Your task to perform on an android device: Add "logitech g pro" to the cart on newegg, then select checkout. Image 0: 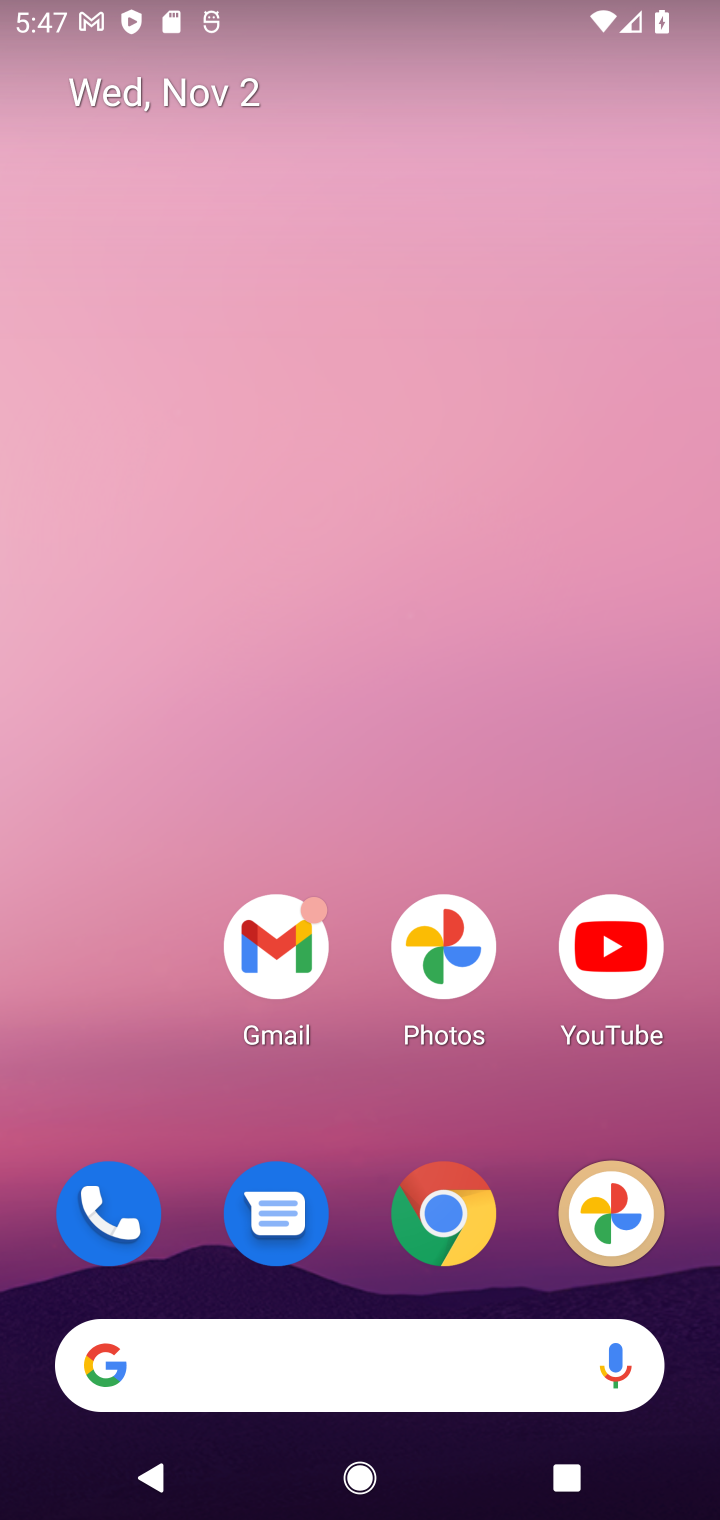
Step 0: click (450, 1209)
Your task to perform on an android device: Add "logitech g pro" to the cart on newegg, then select checkout. Image 1: 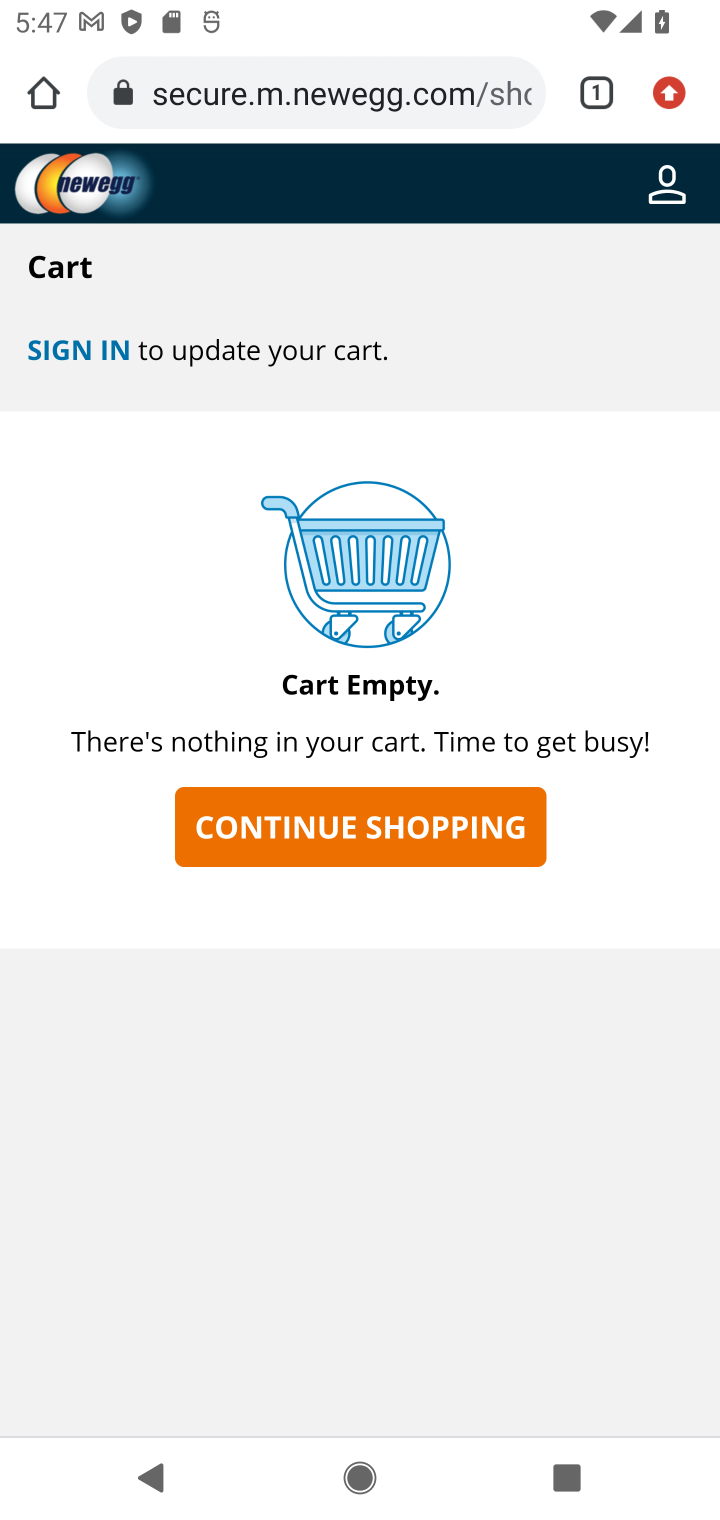
Step 1: click (401, 62)
Your task to perform on an android device: Add "logitech g pro" to the cart on newegg, then select checkout. Image 2: 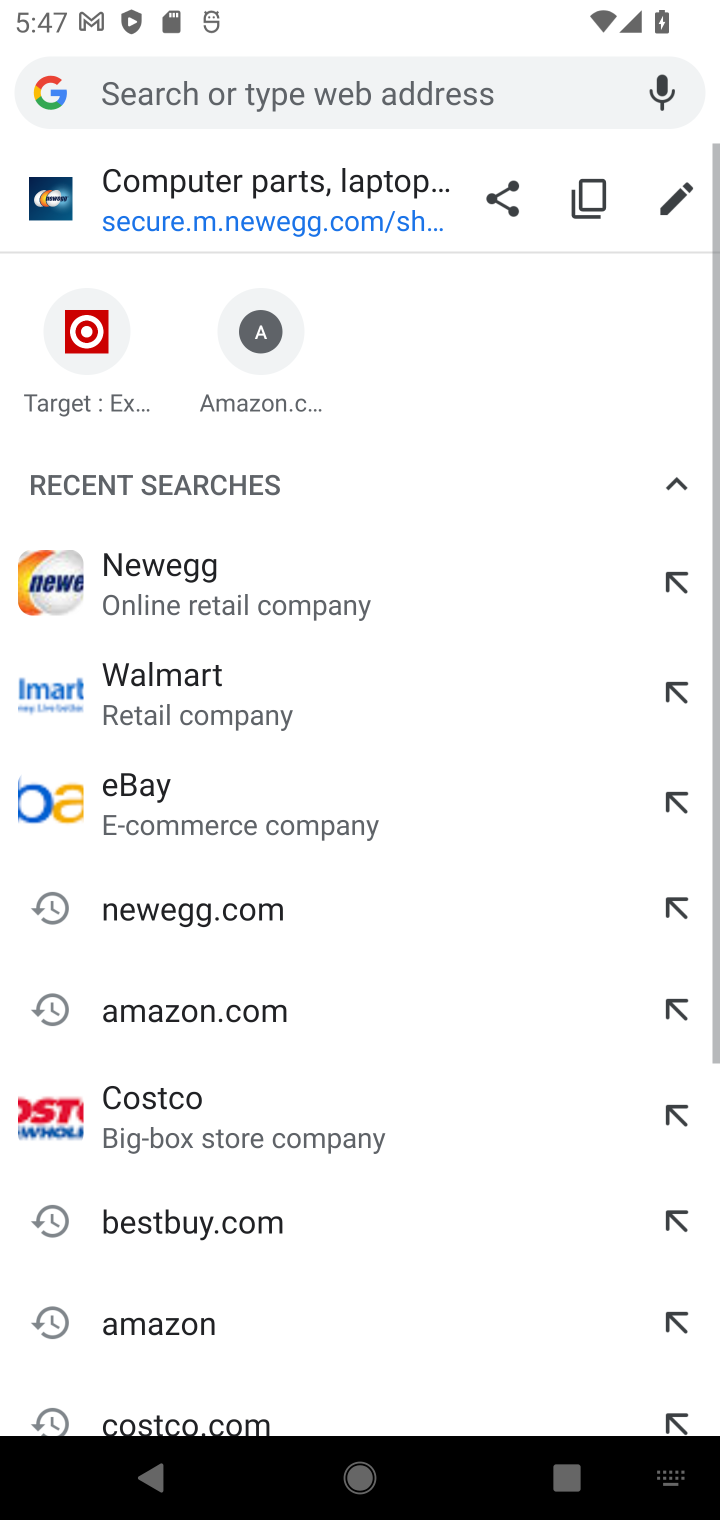
Step 2: click (142, 195)
Your task to perform on an android device: Add "logitech g pro" to the cart on newegg, then select checkout. Image 3: 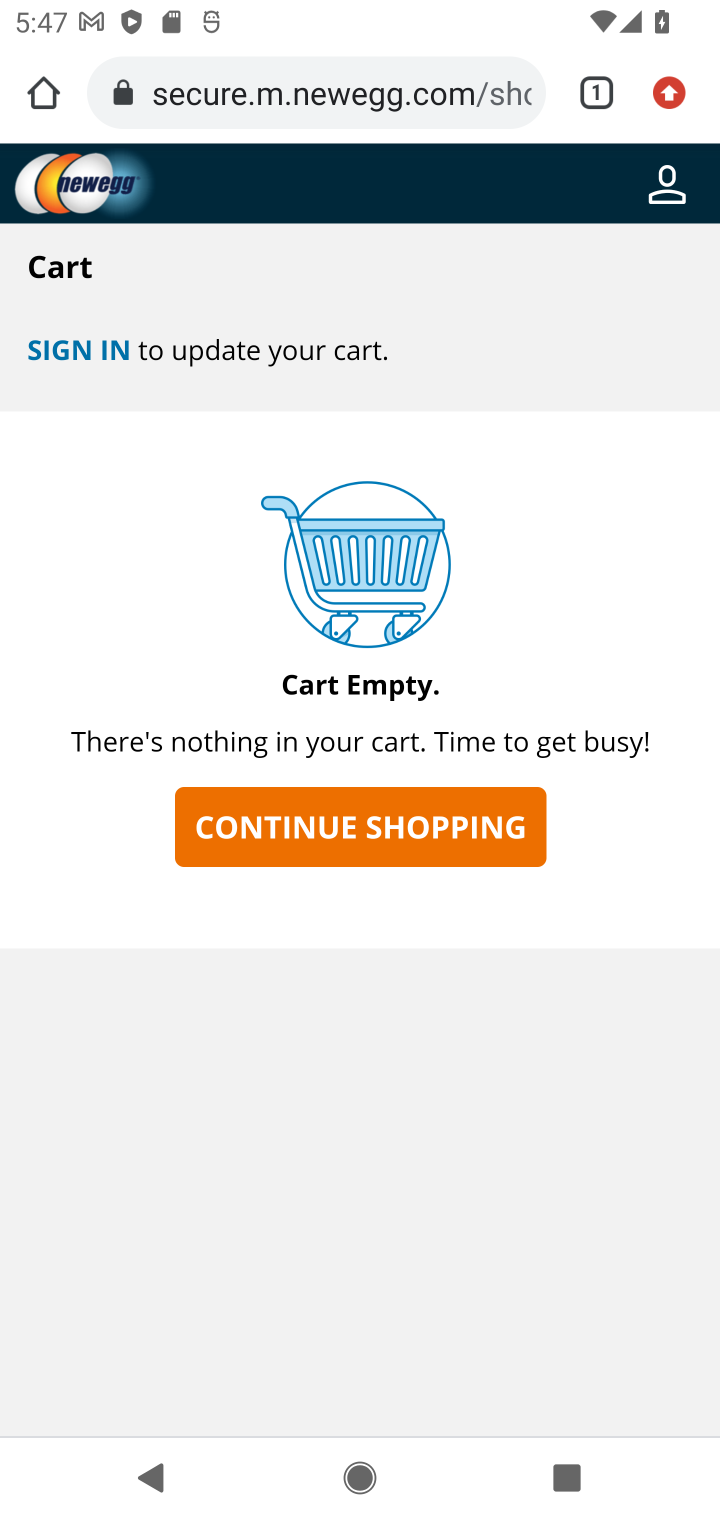
Step 3: drag from (520, 315) to (472, 682)
Your task to perform on an android device: Add "logitech g pro" to the cart on newegg, then select checkout. Image 4: 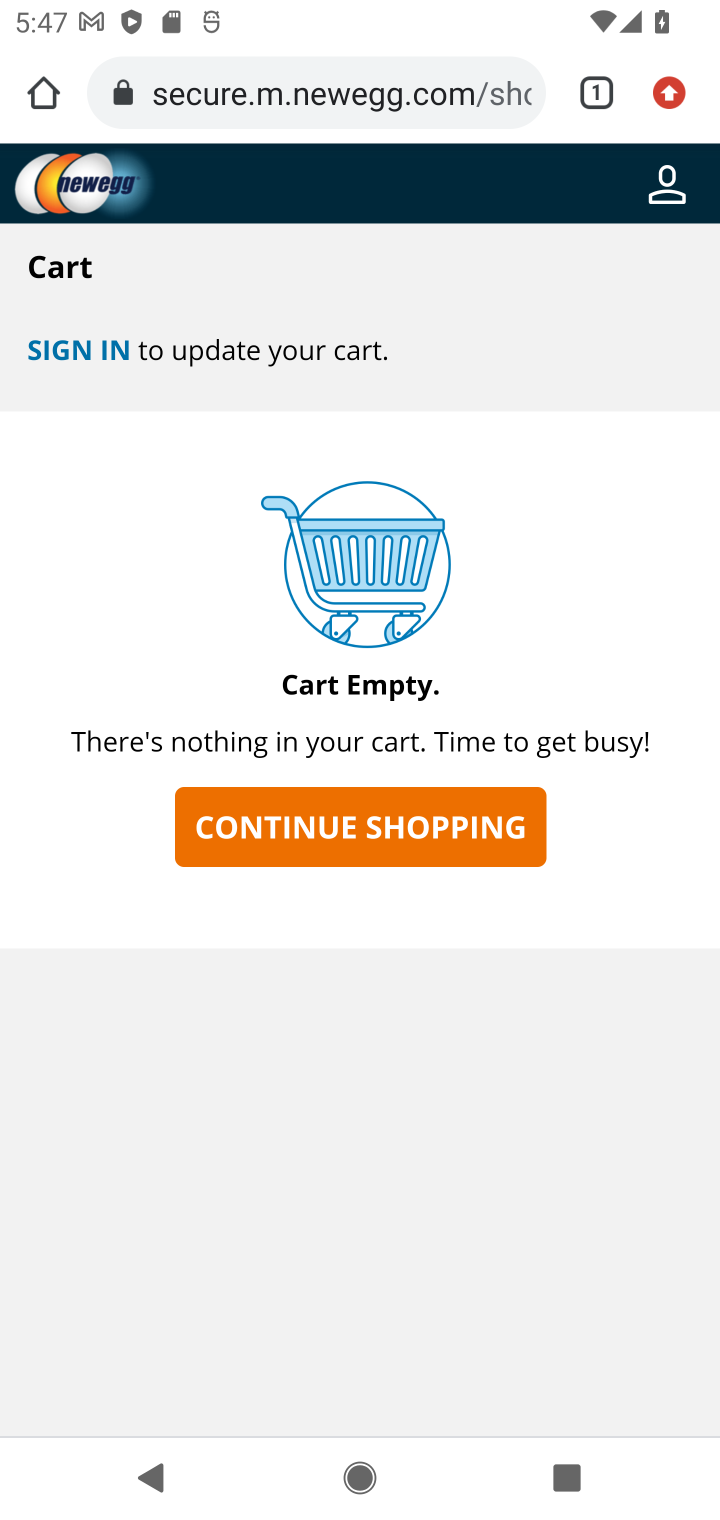
Step 4: click (330, 822)
Your task to perform on an android device: Add "logitech g pro" to the cart on newegg, then select checkout. Image 5: 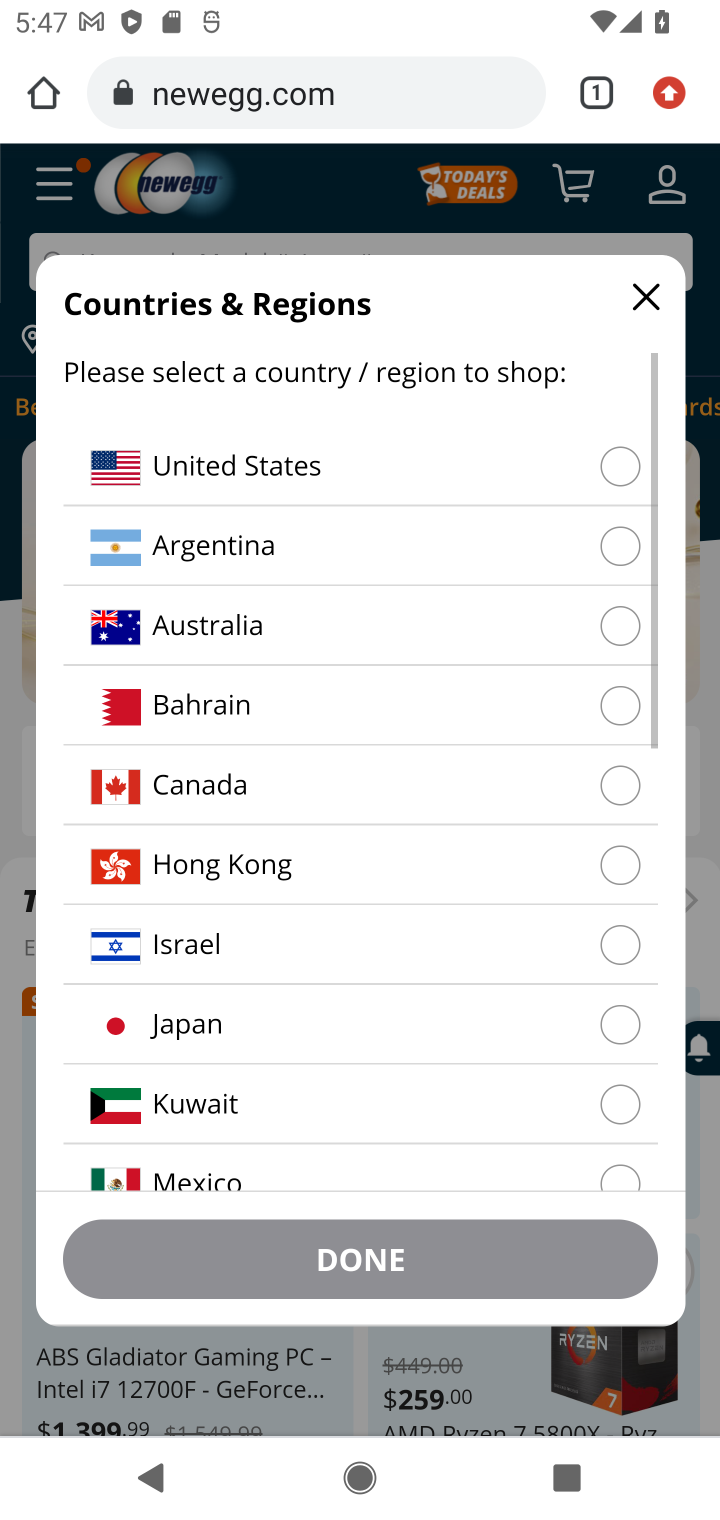
Step 5: click (614, 463)
Your task to perform on an android device: Add "logitech g pro" to the cart on newegg, then select checkout. Image 6: 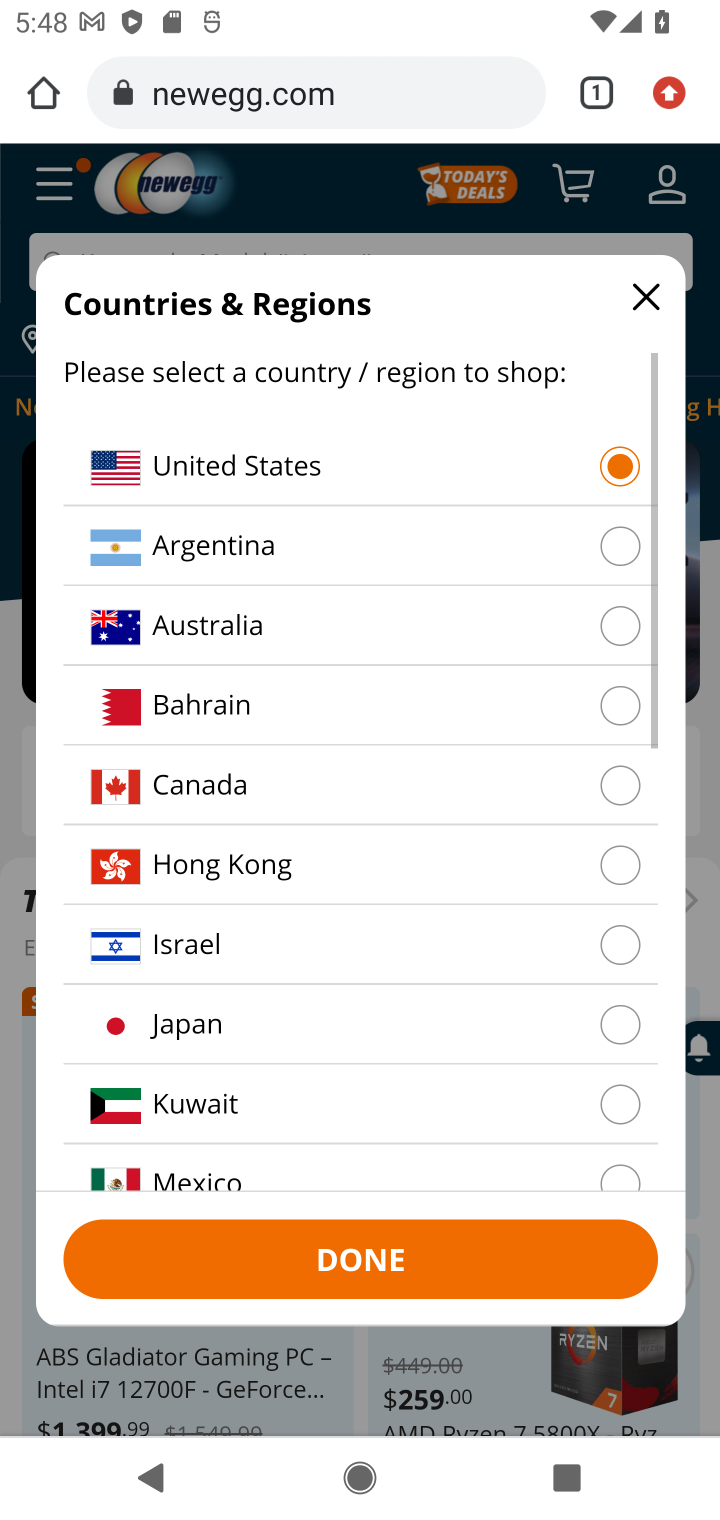
Step 6: click (364, 1256)
Your task to perform on an android device: Add "logitech g pro" to the cart on newegg, then select checkout. Image 7: 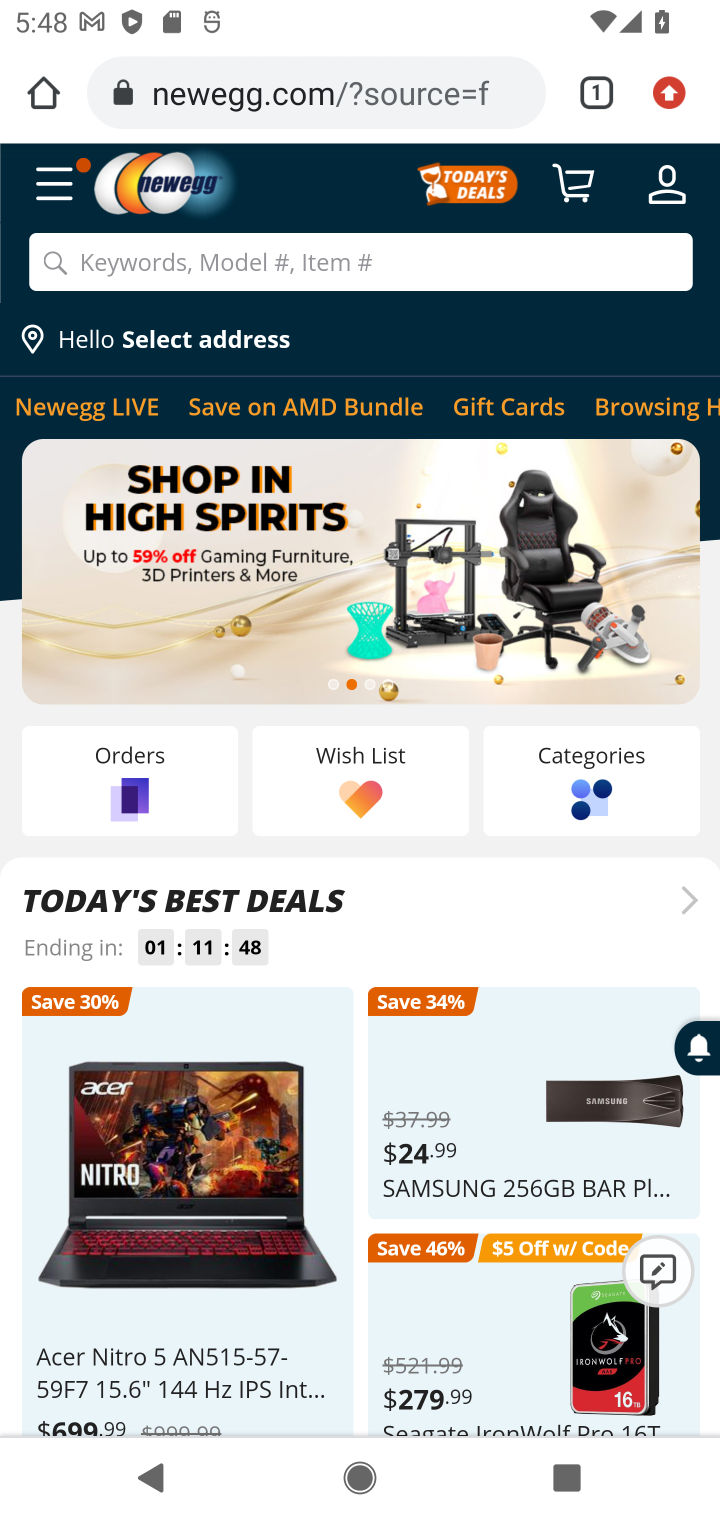
Step 7: click (238, 242)
Your task to perform on an android device: Add "logitech g pro" to the cart on newegg, then select checkout. Image 8: 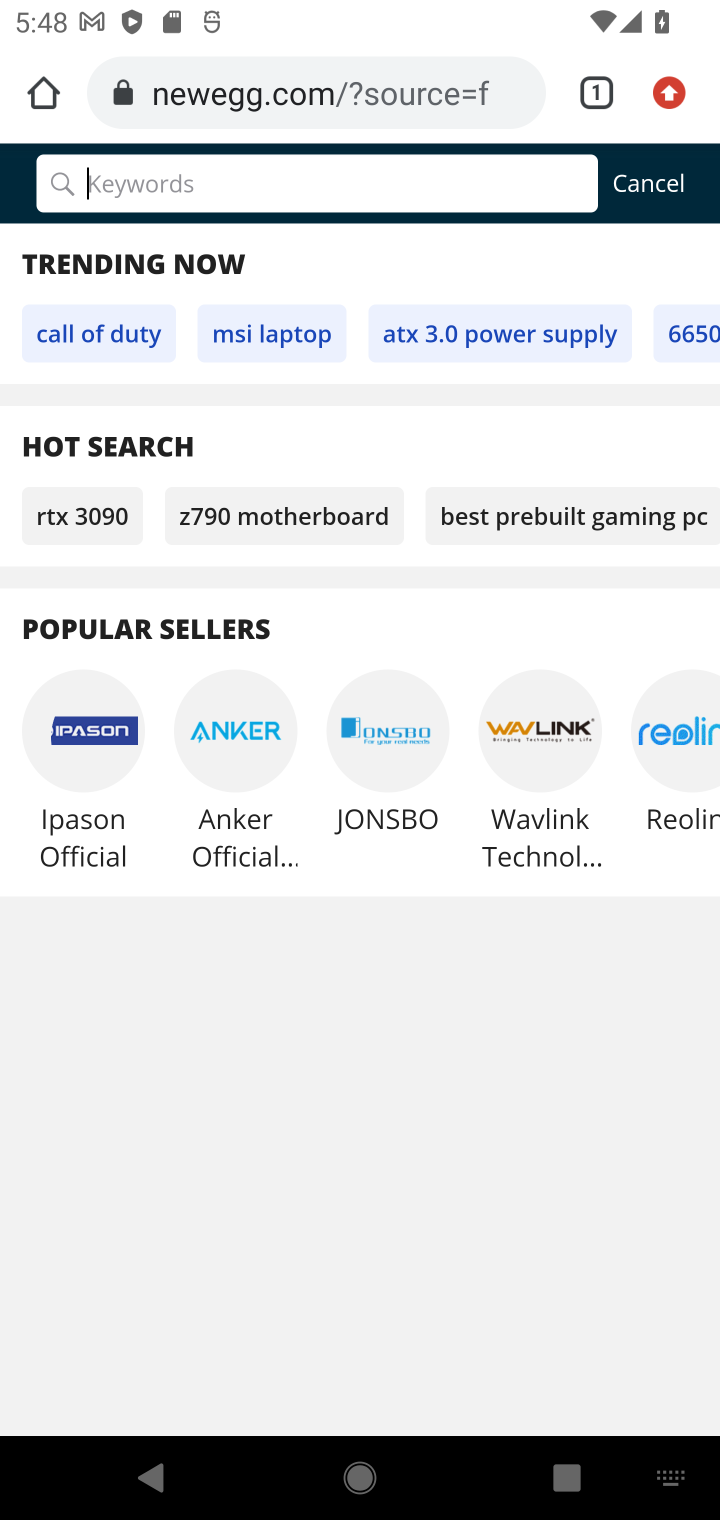
Step 8: type "logitech g pro"
Your task to perform on an android device: Add "logitech g pro" to the cart on newegg, then select checkout. Image 9: 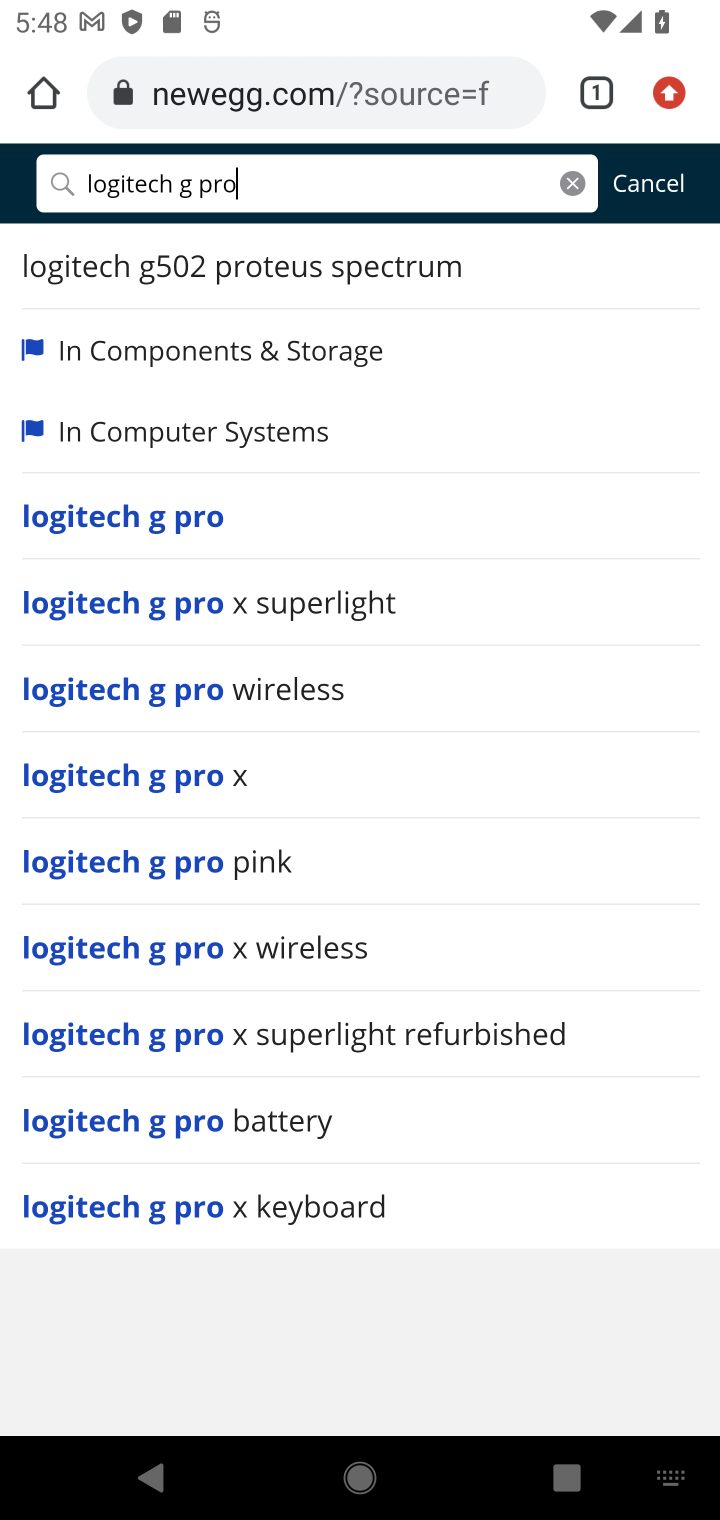
Step 9: click (129, 512)
Your task to perform on an android device: Add "logitech g pro" to the cart on newegg, then select checkout. Image 10: 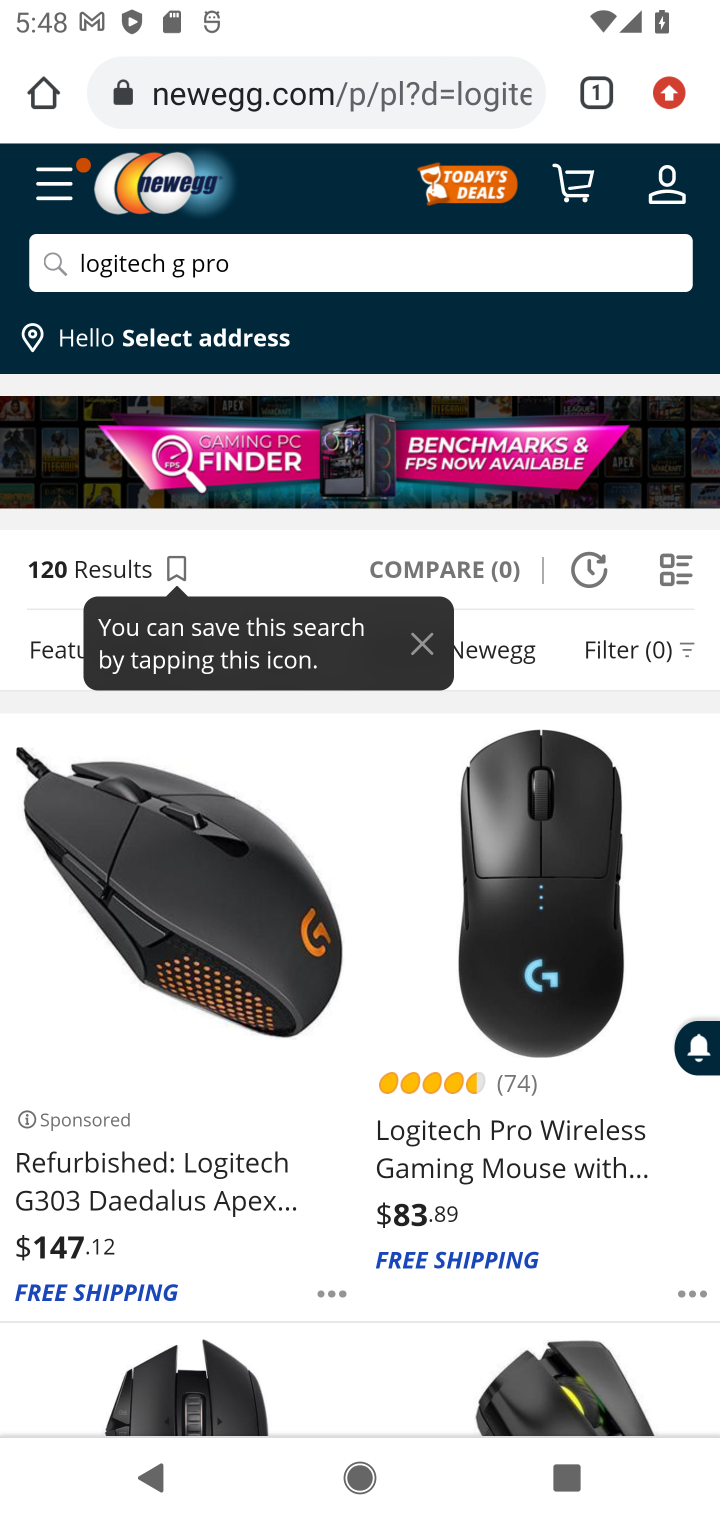
Step 10: drag from (331, 1255) to (351, 944)
Your task to perform on an android device: Add "logitech g pro" to the cart on newegg, then select checkout. Image 11: 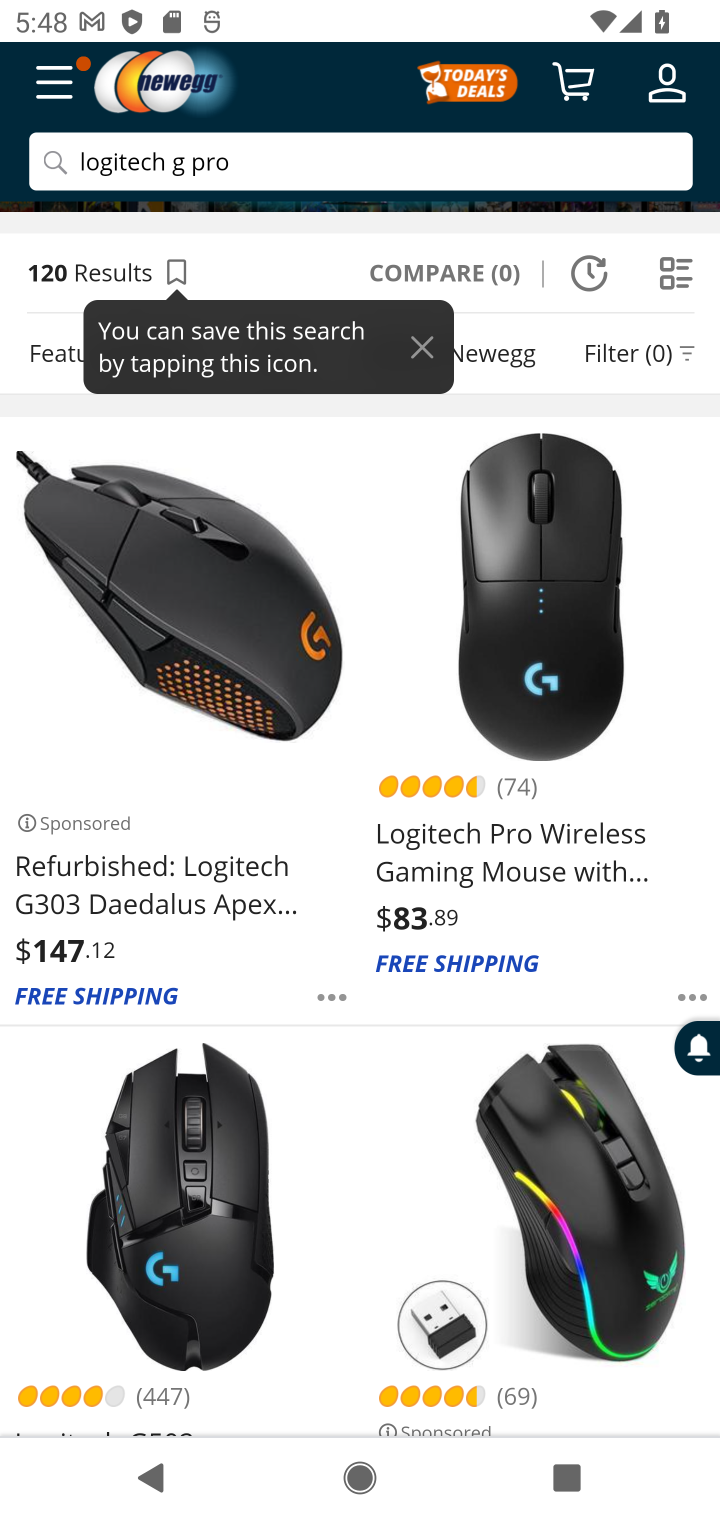
Step 11: drag from (323, 1218) to (373, 595)
Your task to perform on an android device: Add "logitech g pro" to the cart on newegg, then select checkout. Image 12: 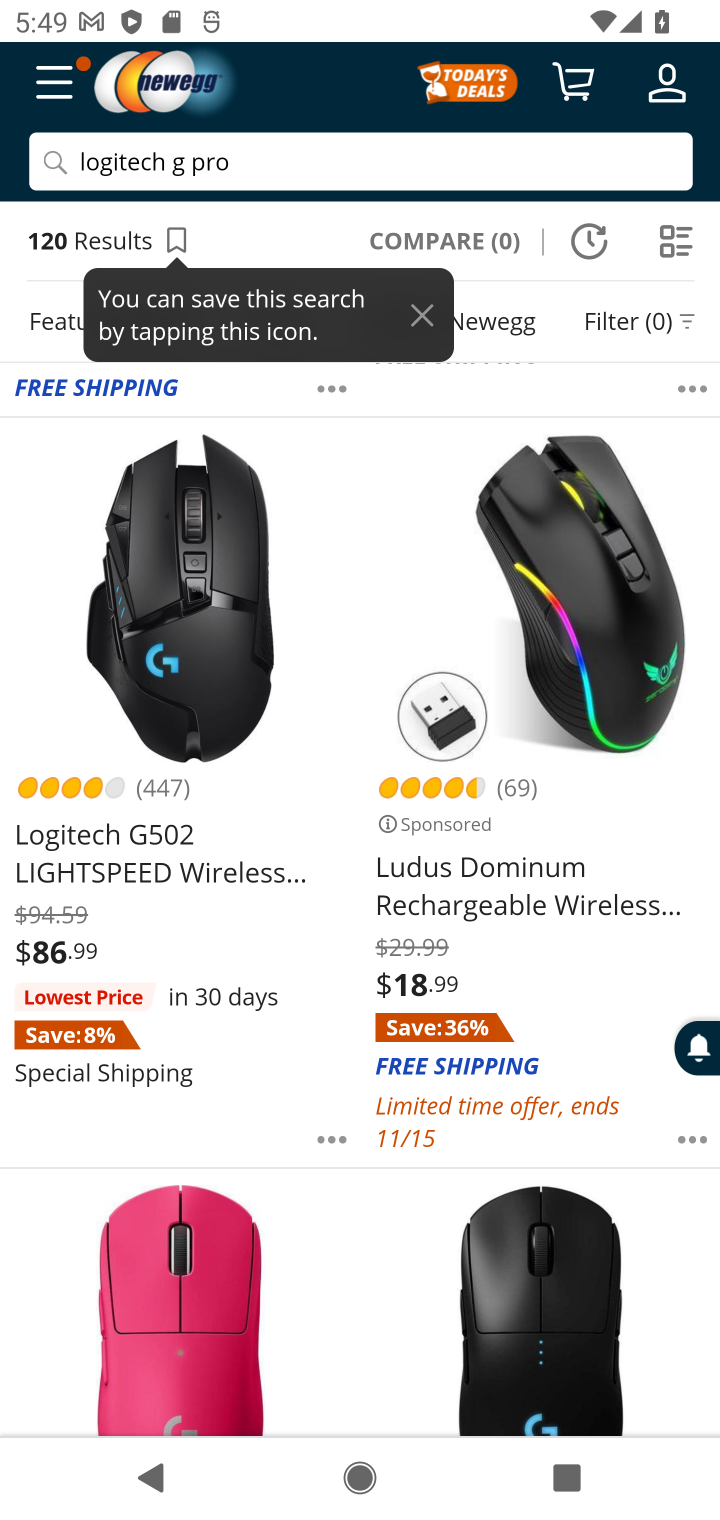
Step 12: drag from (334, 1172) to (354, 485)
Your task to perform on an android device: Add "logitech g pro" to the cart on newegg, then select checkout. Image 13: 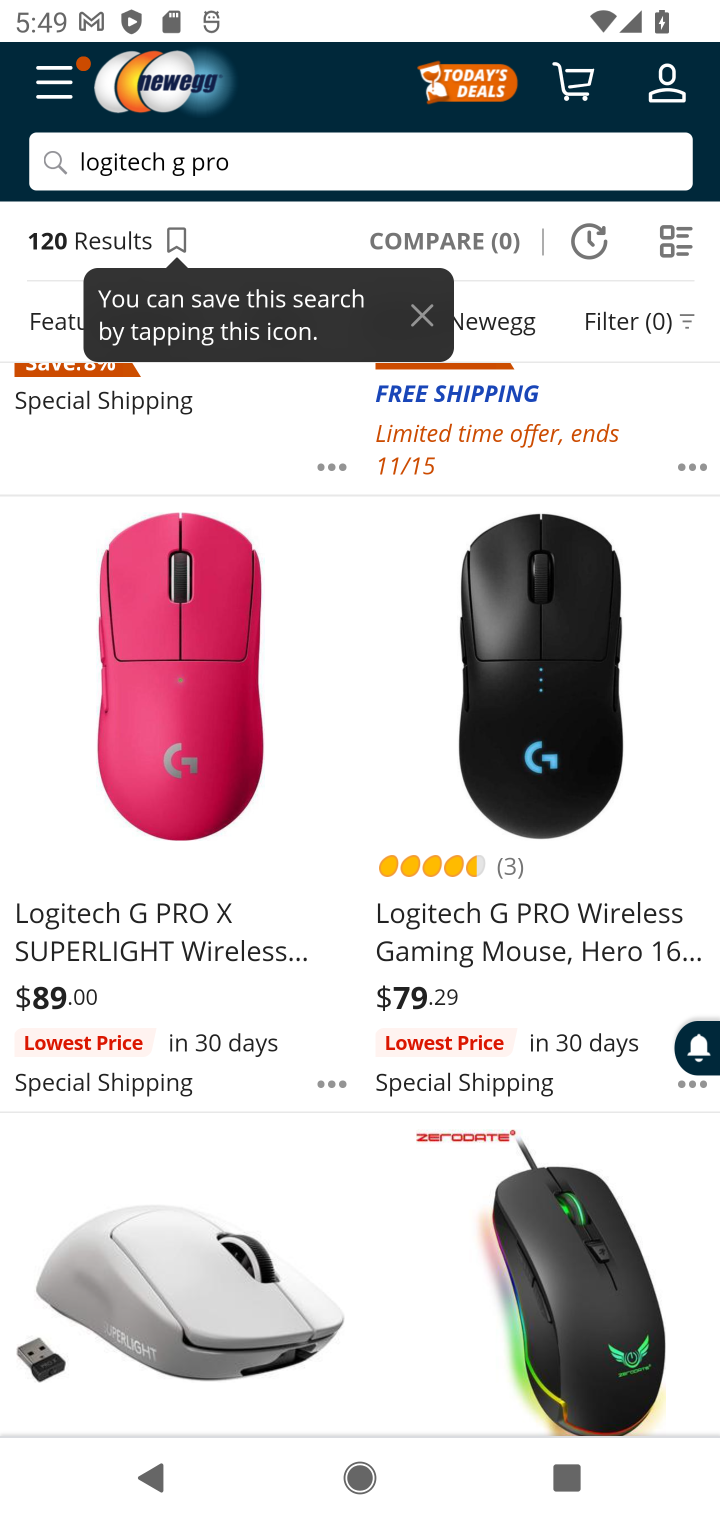
Step 13: drag from (346, 1322) to (350, 792)
Your task to perform on an android device: Add "logitech g pro" to the cart on newegg, then select checkout. Image 14: 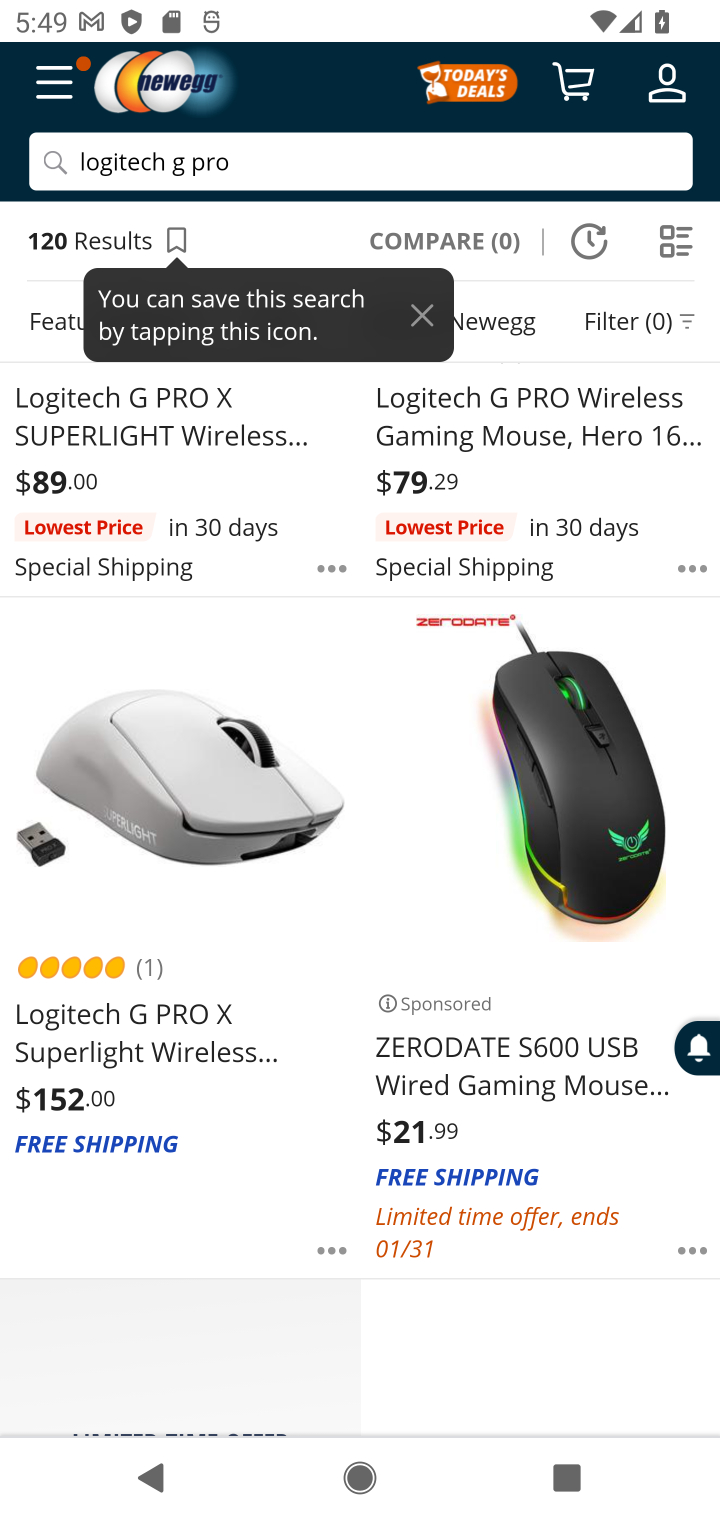
Step 14: click (508, 427)
Your task to perform on an android device: Add "logitech g pro" to the cart on newegg, then select checkout. Image 15: 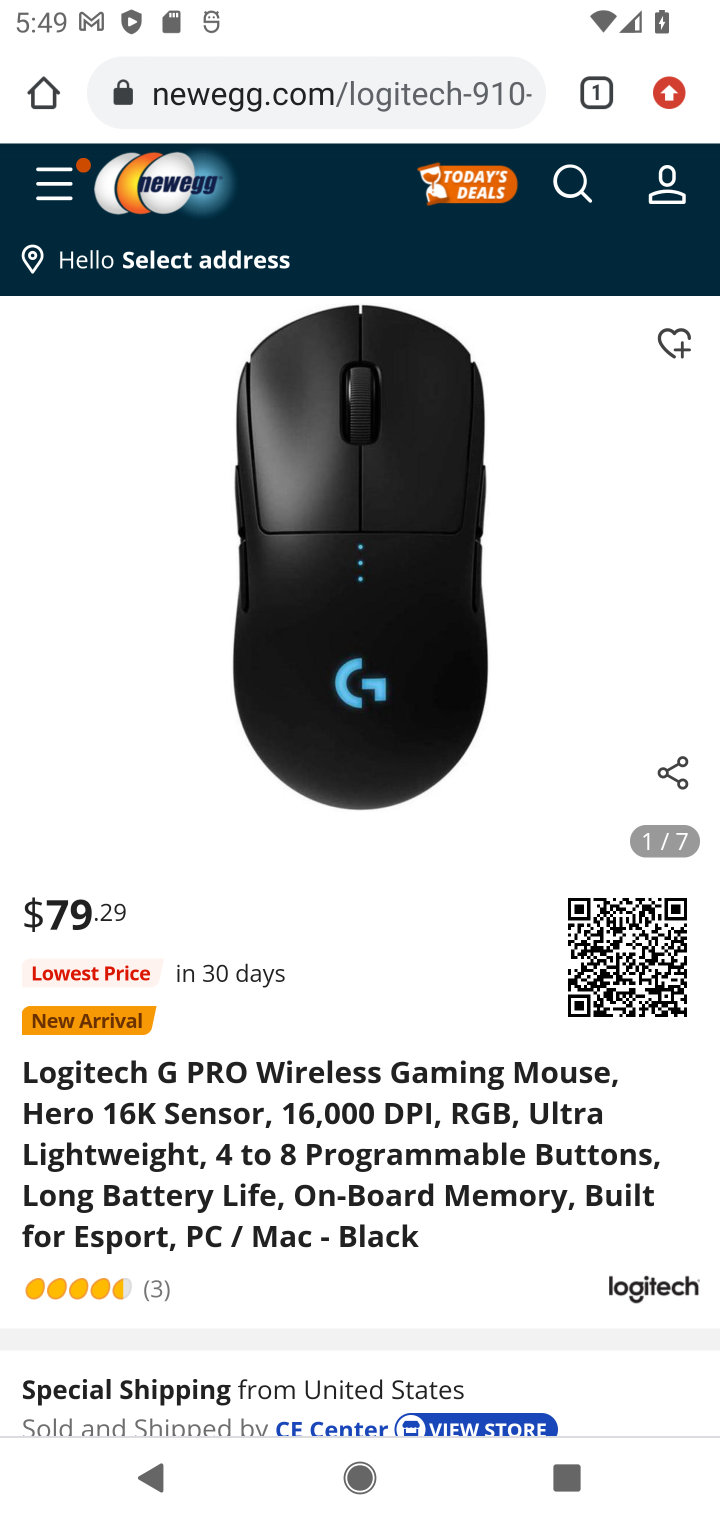
Step 15: click (332, 1397)
Your task to perform on an android device: Add "logitech g pro" to the cart on newegg, then select checkout. Image 16: 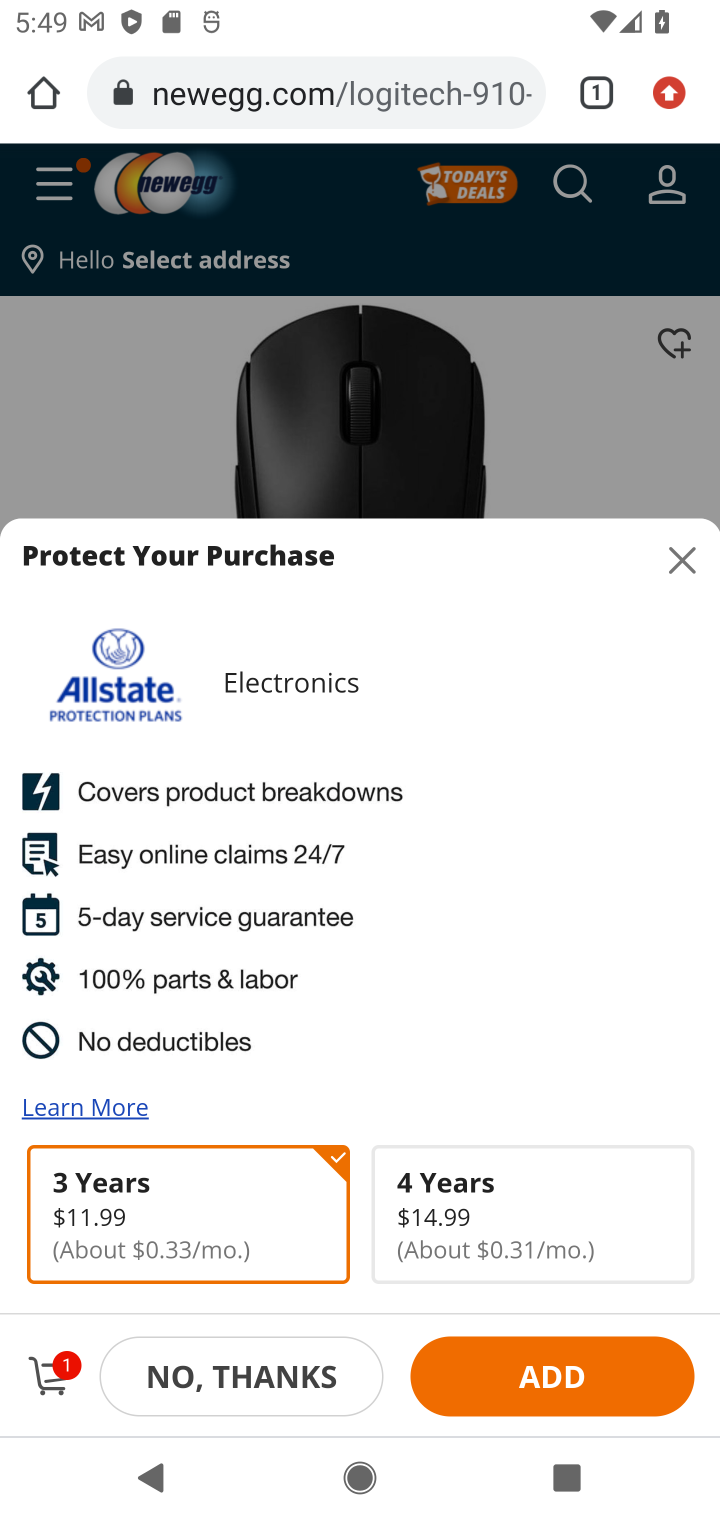
Step 16: click (240, 1368)
Your task to perform on an android device: Add "logitech g pro" to the cart on newegg, then select checkout. Image 17: 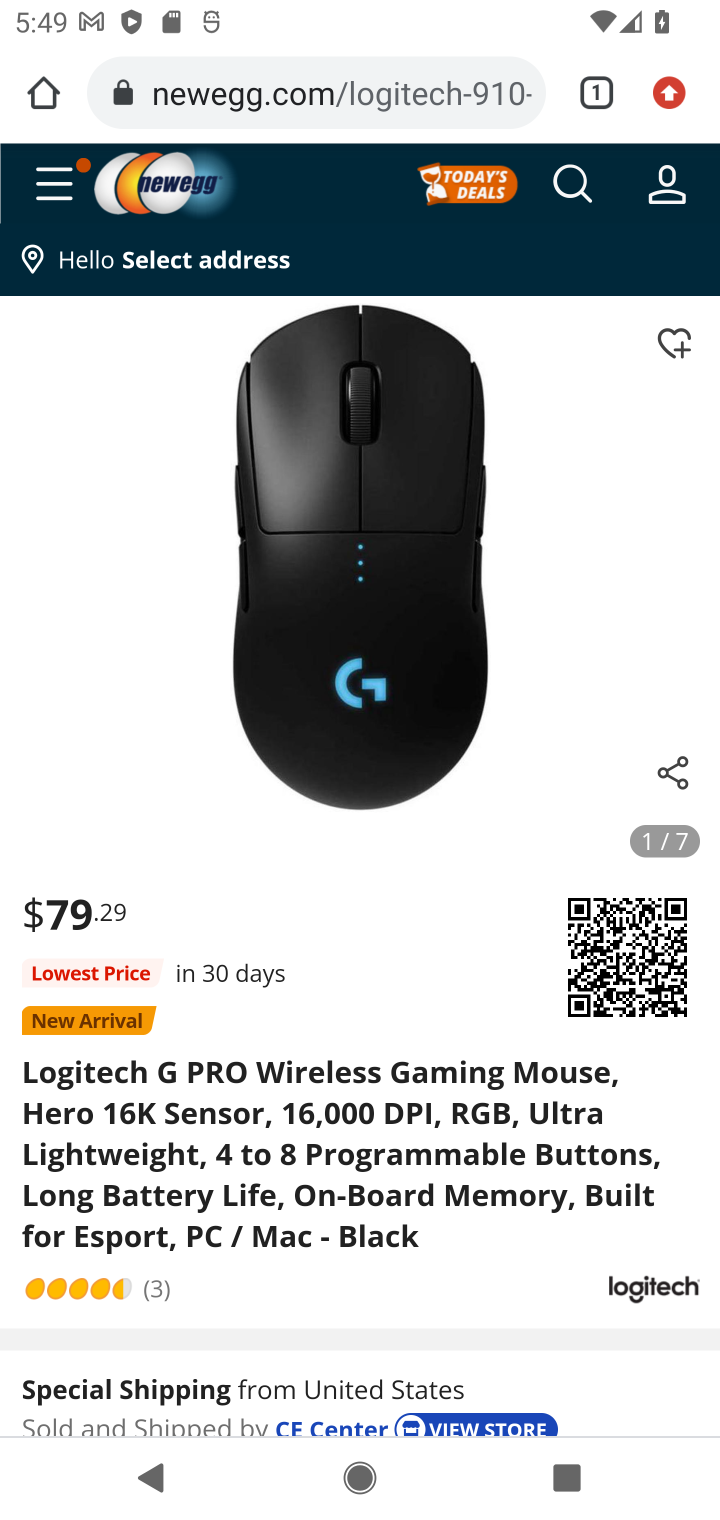
Step 17: click (46, 169)
Your task to perform on an android device: Add "logitech g pro" to the cart on newegg, then select checkout. Image 18: 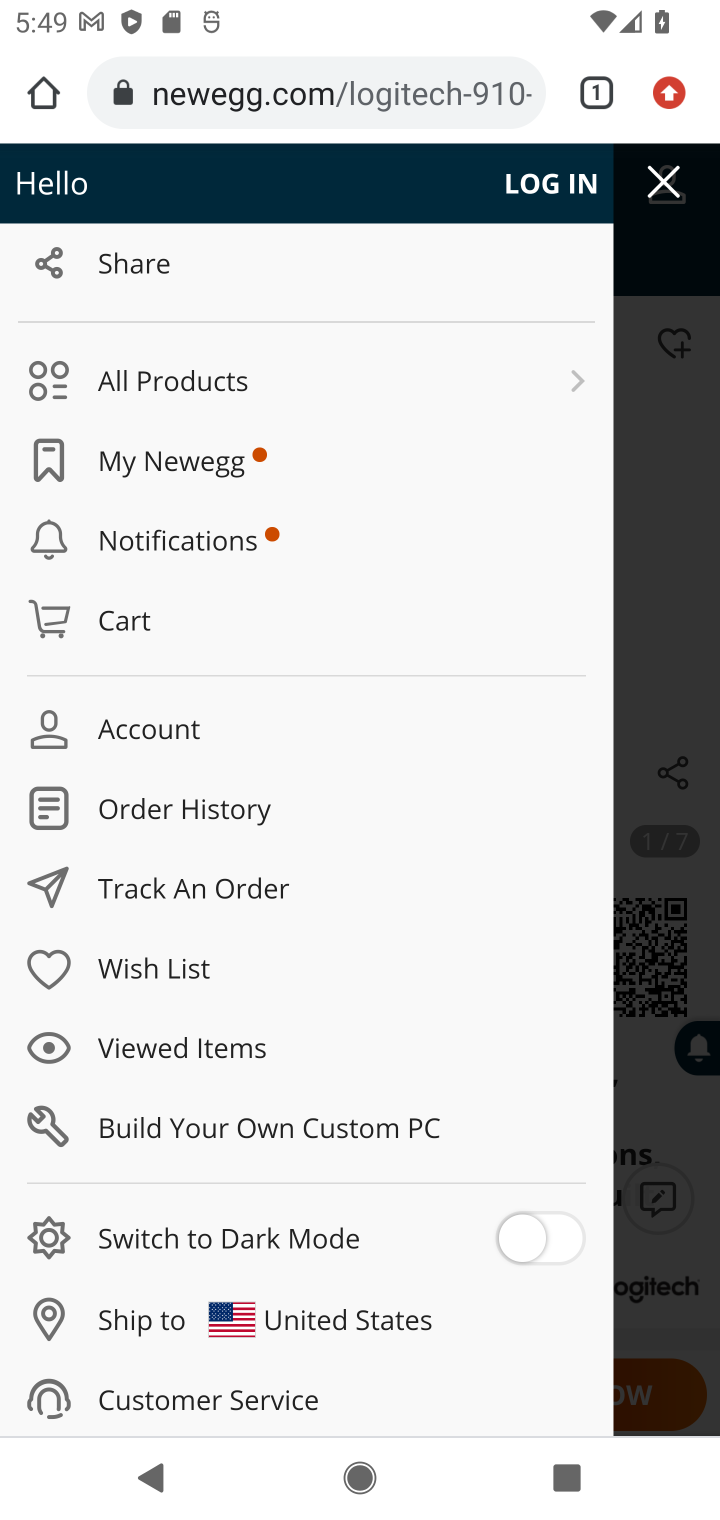
Step 18: click (113, 623)
Your task to perform on an android device: Add "logitech g pro" to the cart on newegg, then select checkout. Image 19: 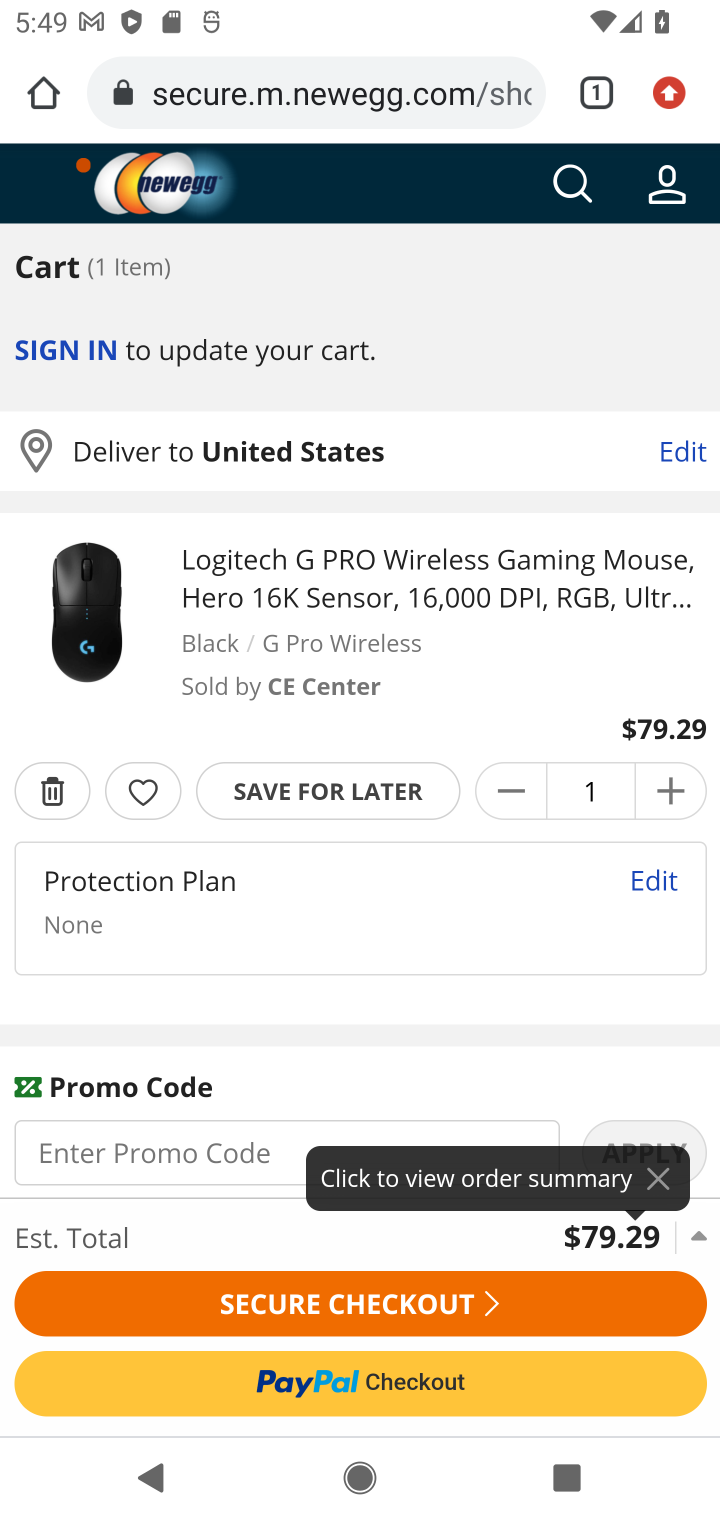
Step 19: click (359, 1306)
Your task to perform on an android device: Add "logitech g pro" to the cart on newegg, then select checkout. Image 20: 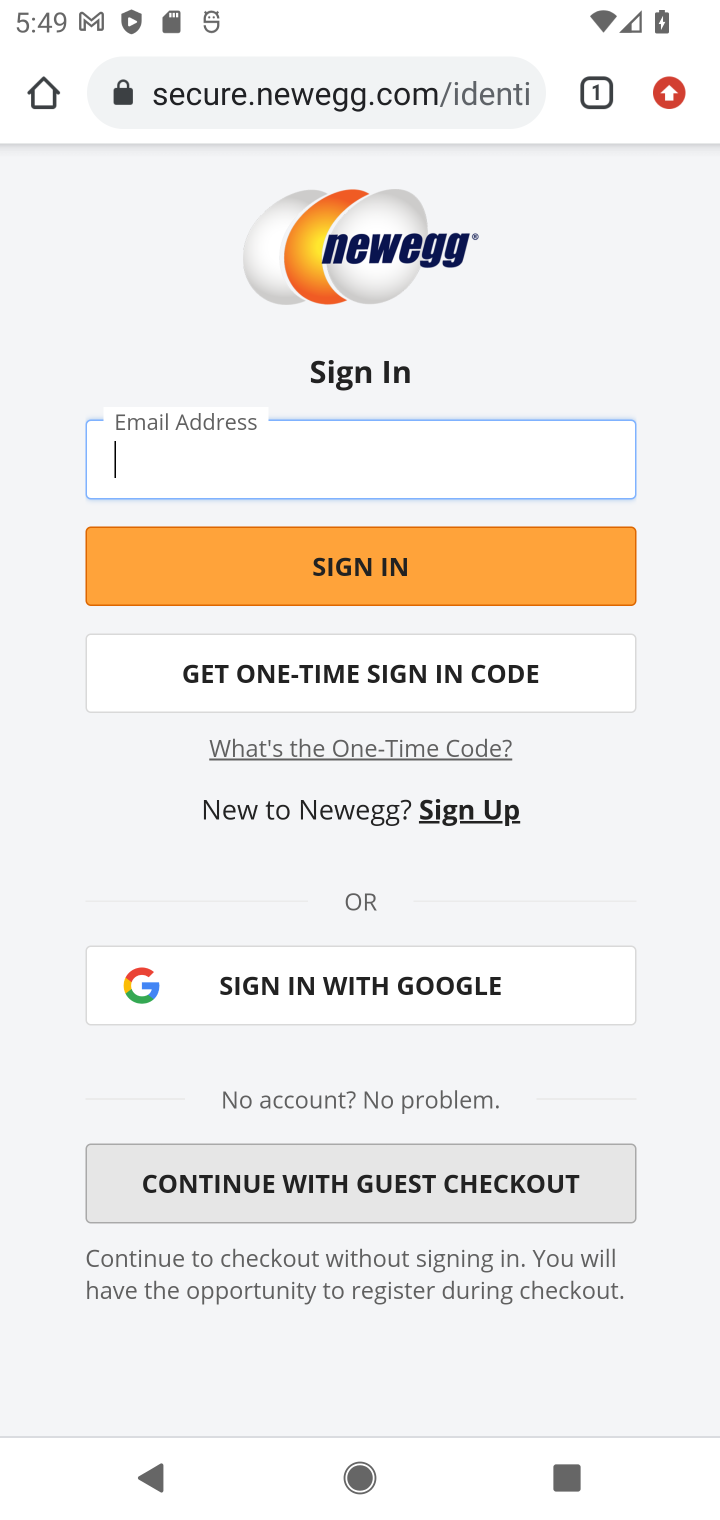
Step 20: task complete